Your task to perform on an android device: View the shopping cart on walmart. Add razer huntsman to the cart on walmart, then select checkout. Image 0: 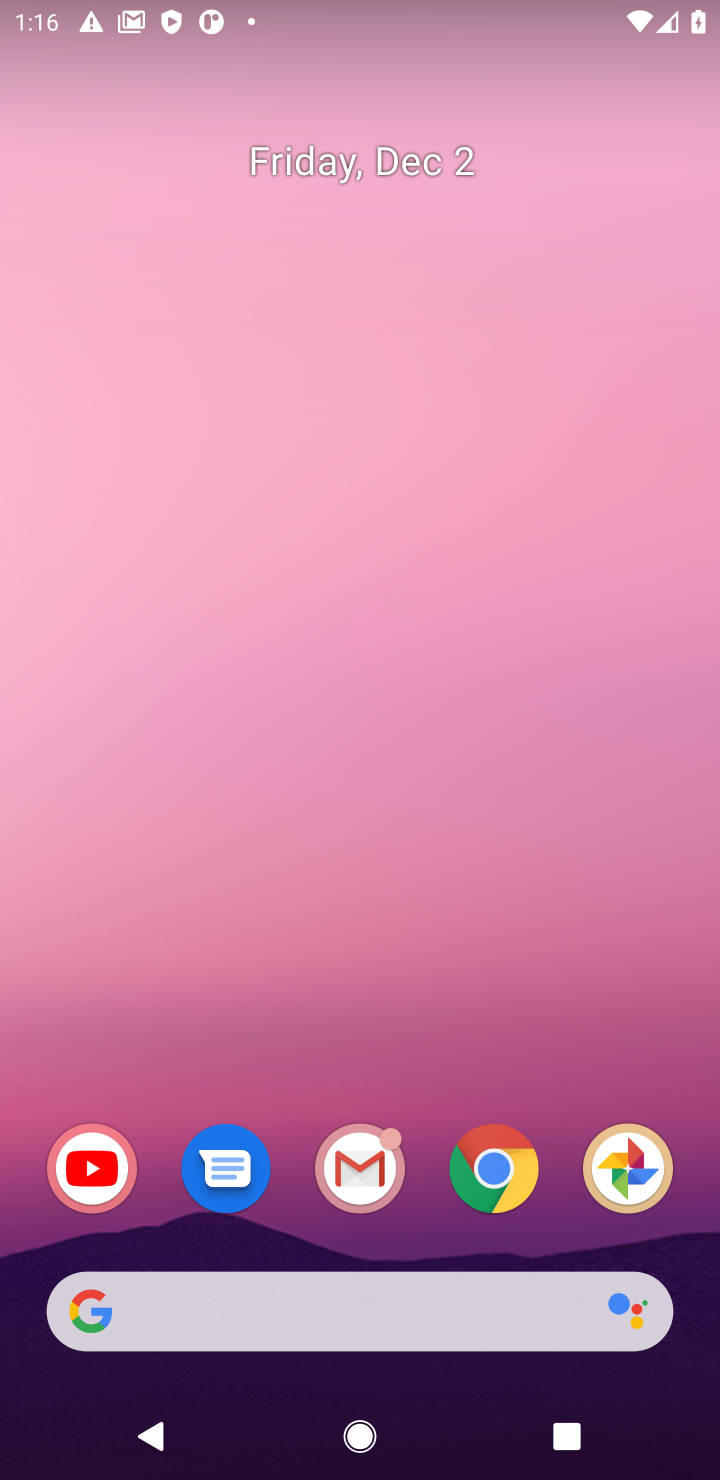
Step 0: click (500, 1170)
Your task to perform on an android device: View the shopping cart on walmart. Add razer huntsman to the cart on walmart, then select checkout. Image 1: 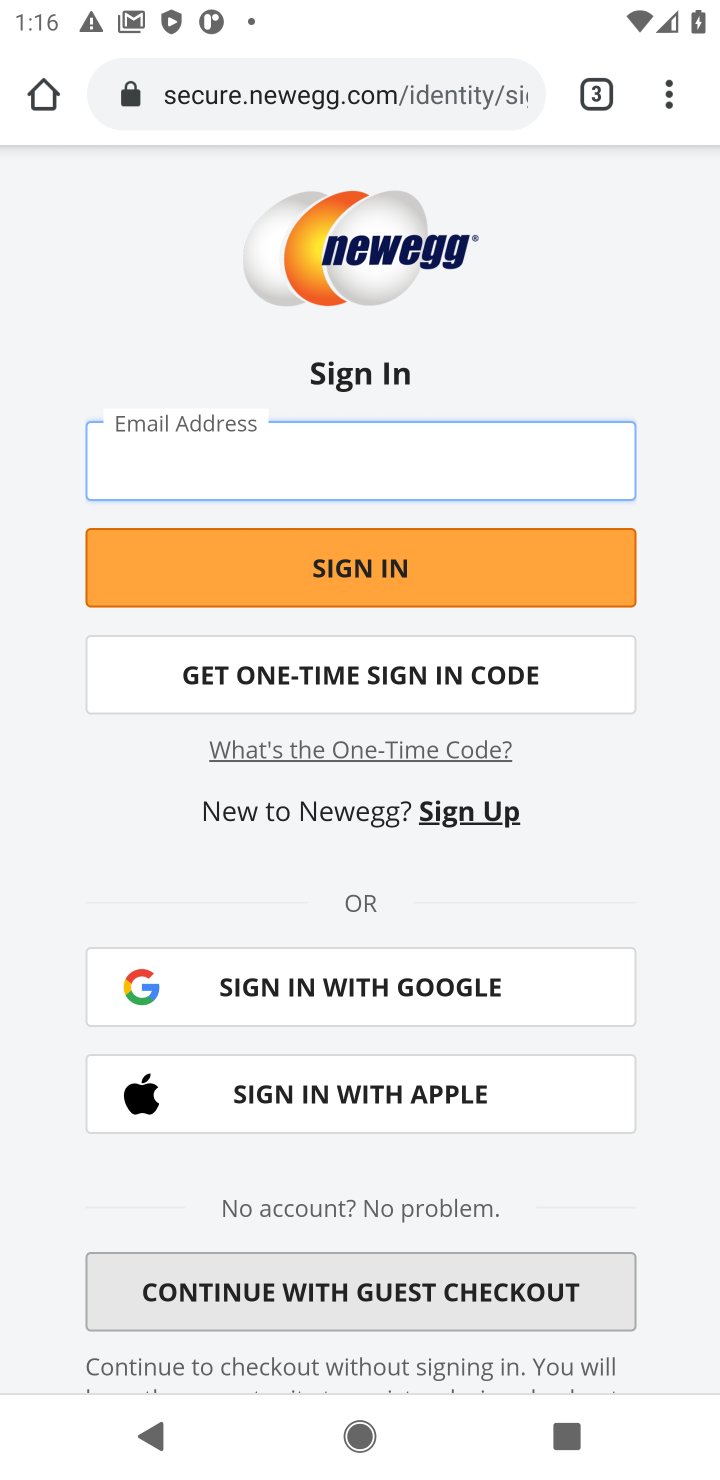
Step 1: click (279, 102)
Your task to perform on an android device: View the shopping cart on walmart. Add razer huntsman to the cart on walmart, then select checkout. Image 2: 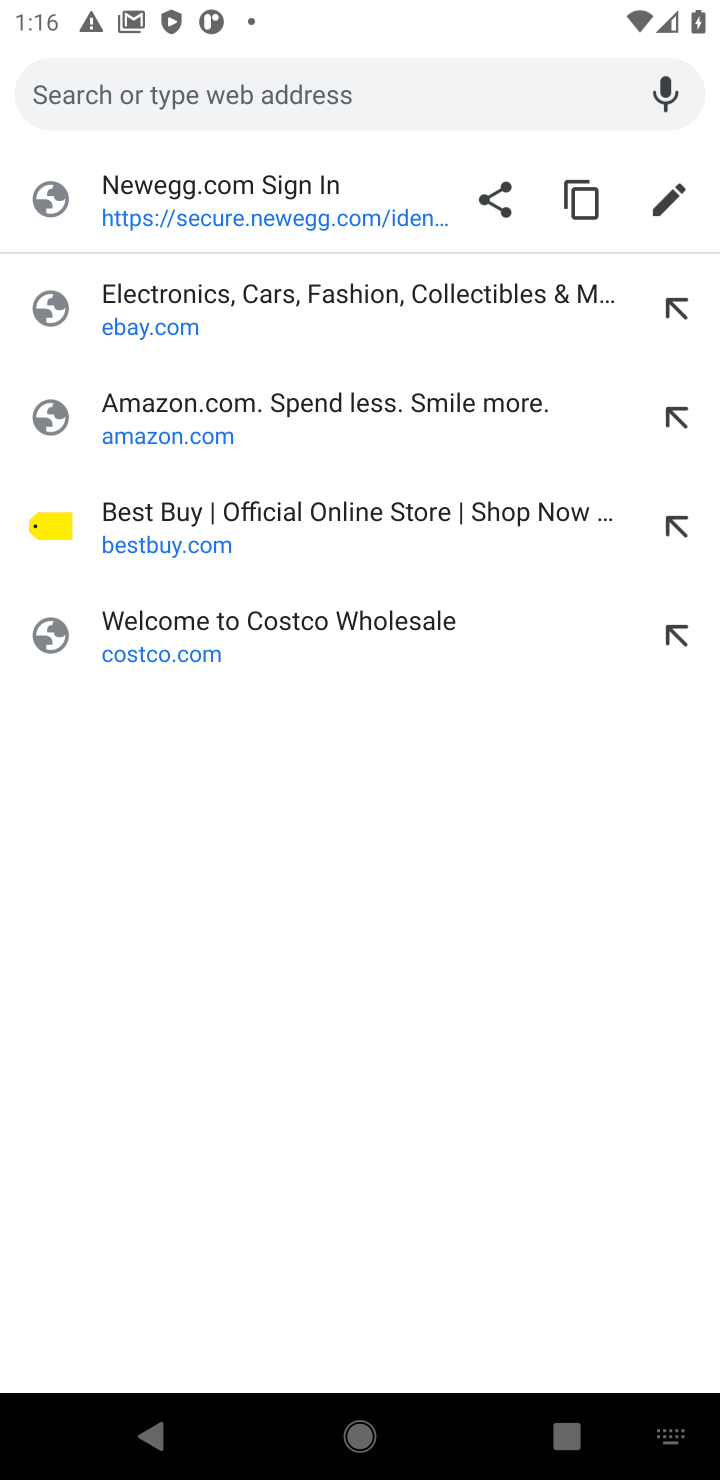
Step 2: type "walmart.com"
Your task to perform on an android device: View the shopping cart on walmart. Add razer huntsman to the cart on walmart, then select checkout. Image 3: 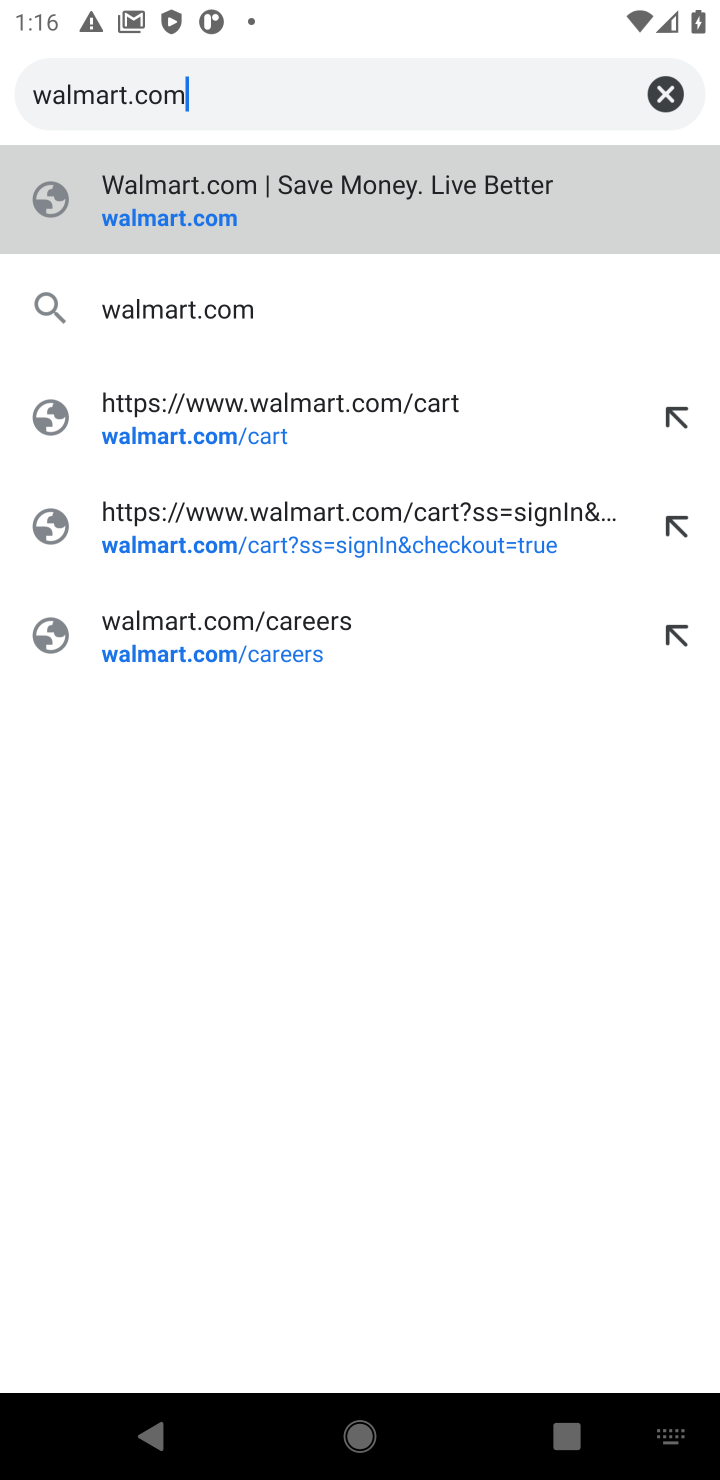
Step 3: click (130, 203)
Your task to perform on an android device: View the shopping cart on walmart. Add razer huntsman to the cart on walmart, then select checkout. Image 4: 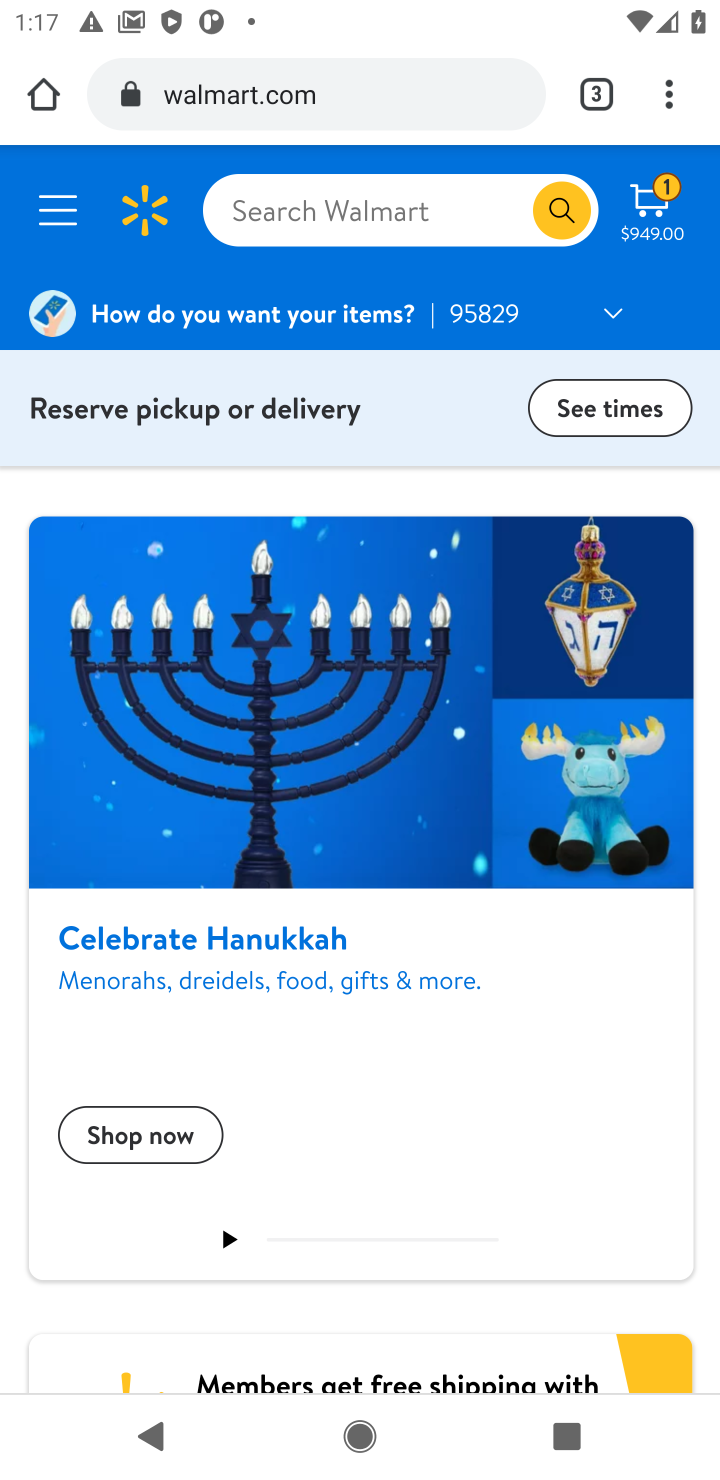
Step 4: click (658, 220)
Your task to perform on an android device: View the shopping cart on walmart. Add razer huntsman to the cart on walmart, then select checkout. Image 5: 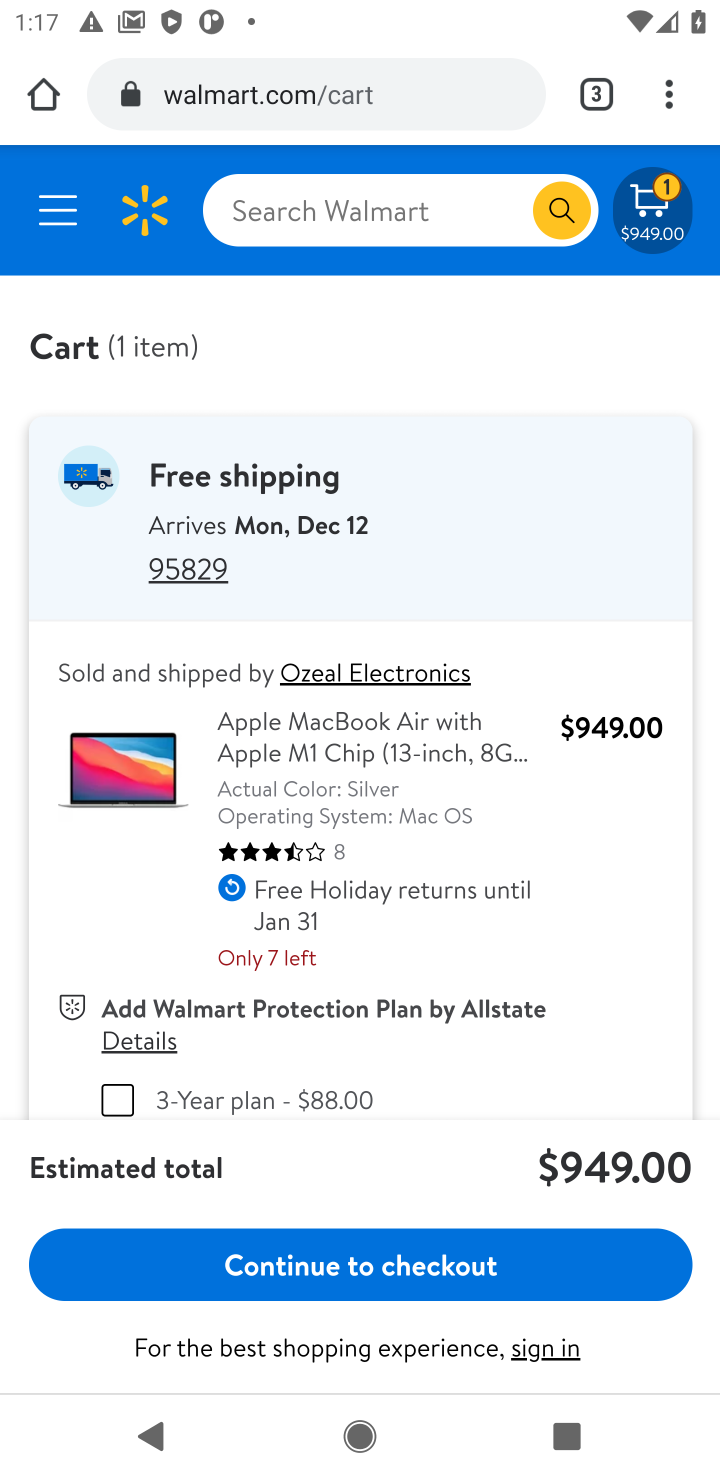
Step 5: click (292, 204)
Your task to perform on an android device: View the shopping cart on walmart. Add razer huntsman to the cart on walmart, then select checkout. Image 6: 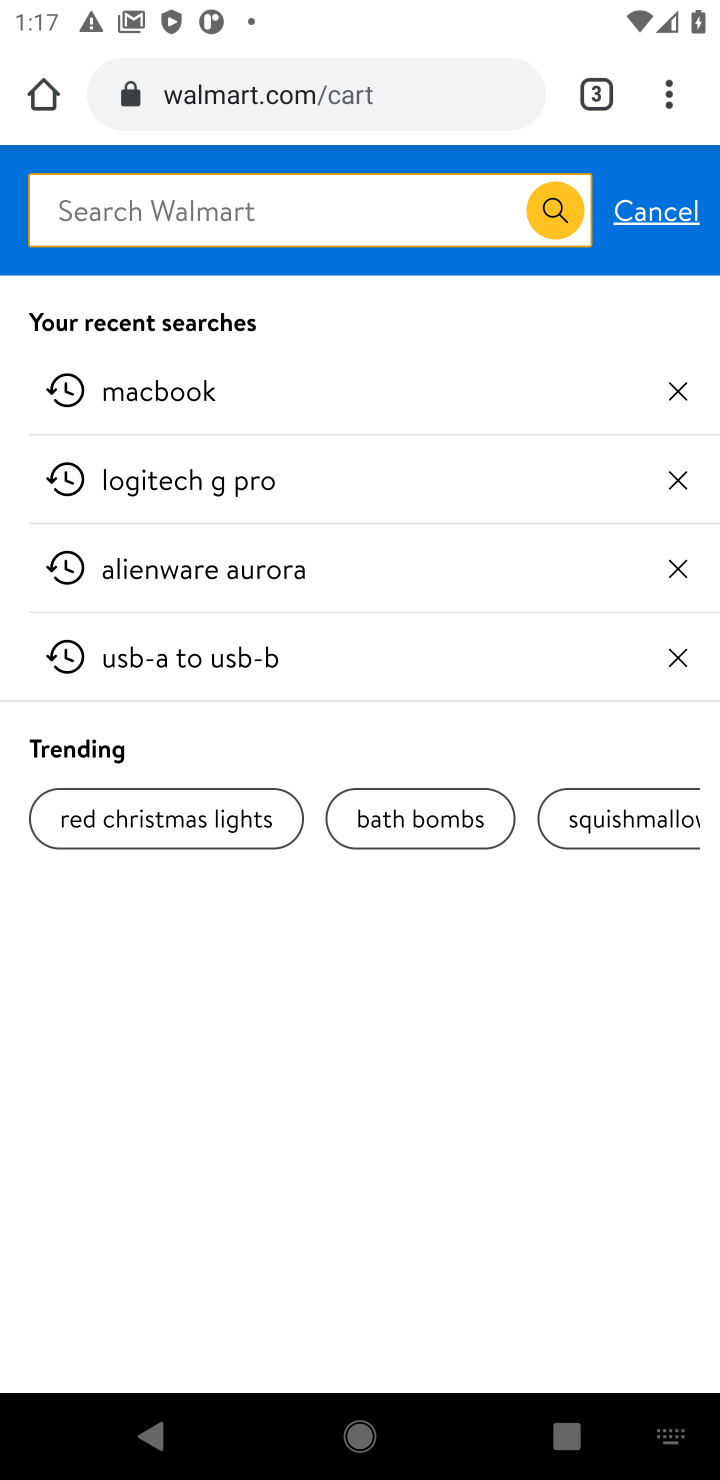
Step 6: type "razer huntsman"
Your task to perform on an android device: View the shopping cart on walmart. Add razer huntsman to the cart on walmart, then select checkout. Image 7: 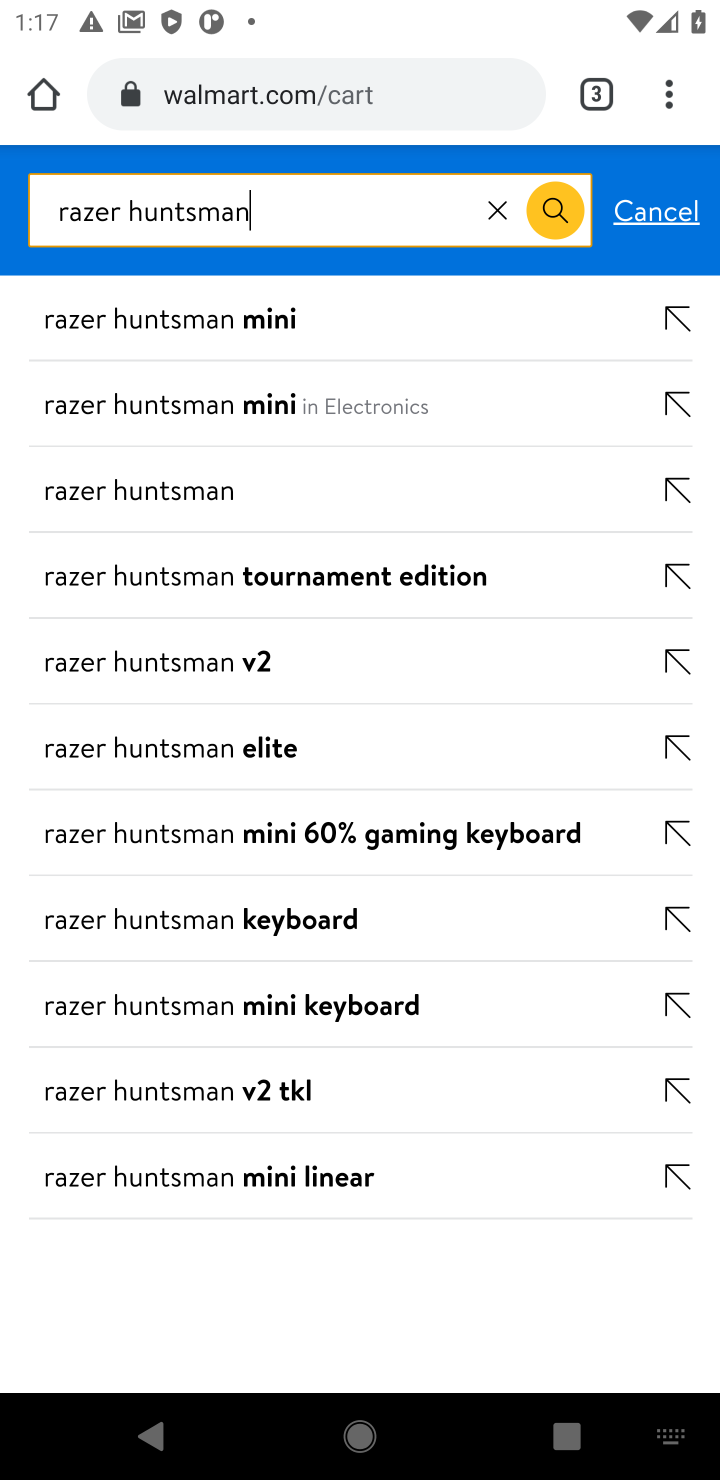
Step 7: click (143, 489)
Your task to perform on an android device: View the shopping cart on walmart. Add razer huntsman to the cart on walmart, then select checkout. Image 8: 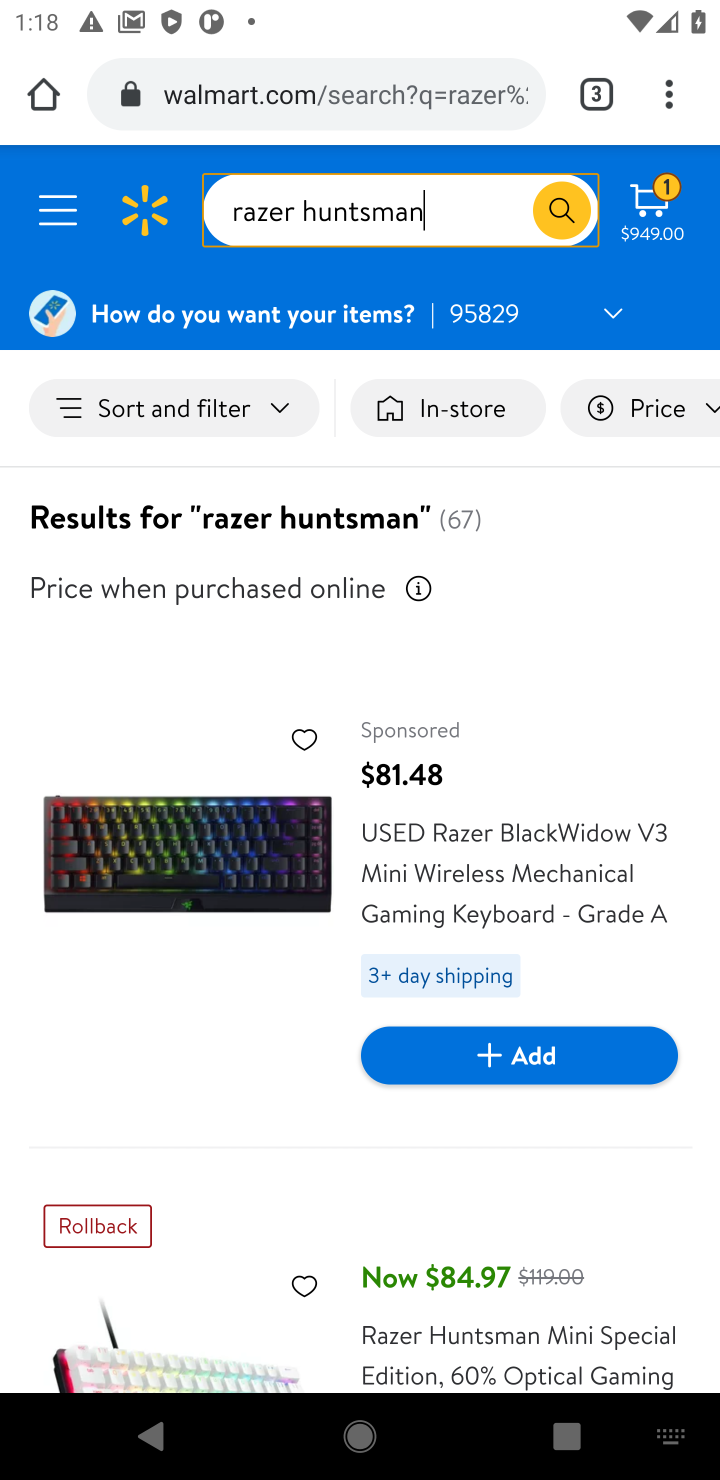
Step 8: drag from (255, 957) to (194, 522)
Your task to perform on an android device: View the shopping cart on walmart. Add razer huntsman to the cart on walmart, then select checkout. Image 9: 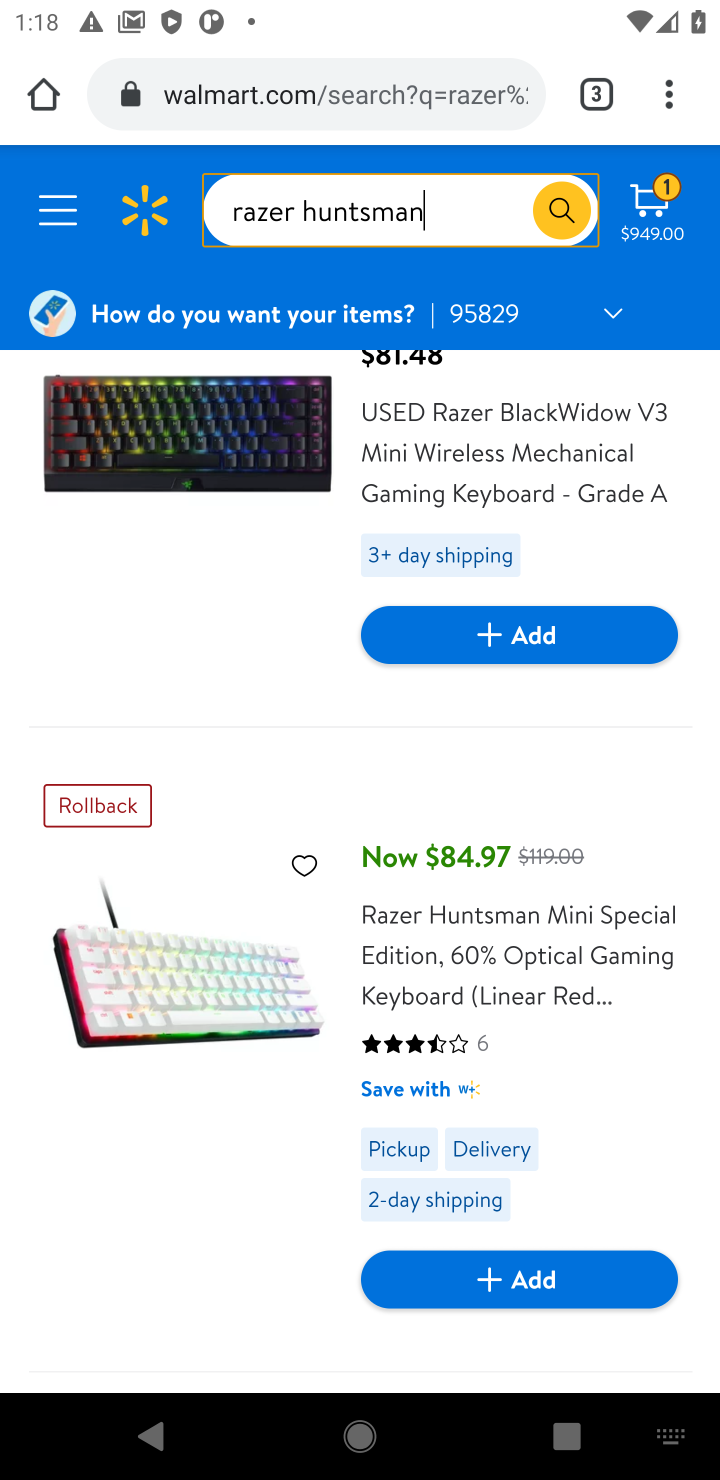
Step 9: drag from (194, 1017) to (188, 729)
Your task to perform on an android device: View the shopping cart on walmart. Add razer huntsman to the cart on walmart, then select checkout. Image 10: 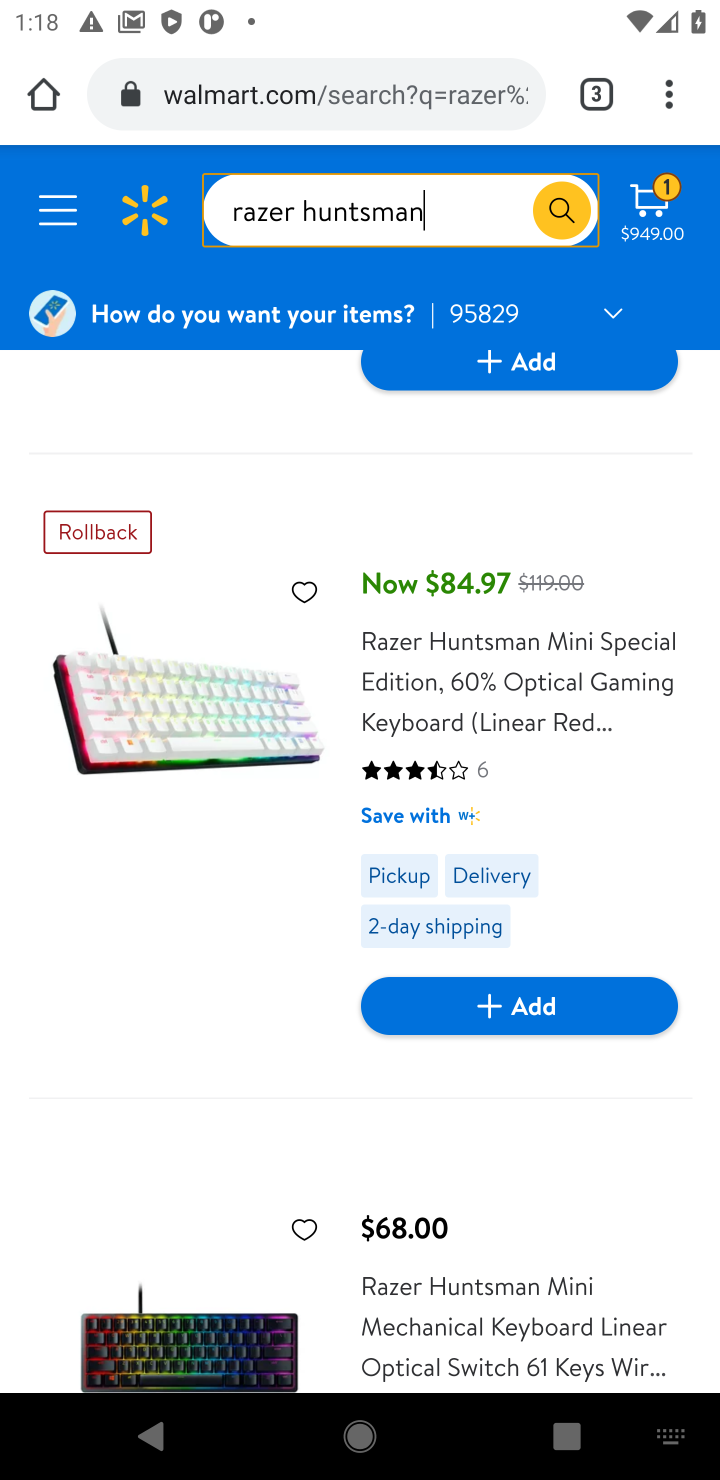
Step 10: click (485, 1004)
Your task to perform on an android device: View the shopping cart on walmart. Add razer huntsman to the cart on walmart, then select checkout. Image 11: 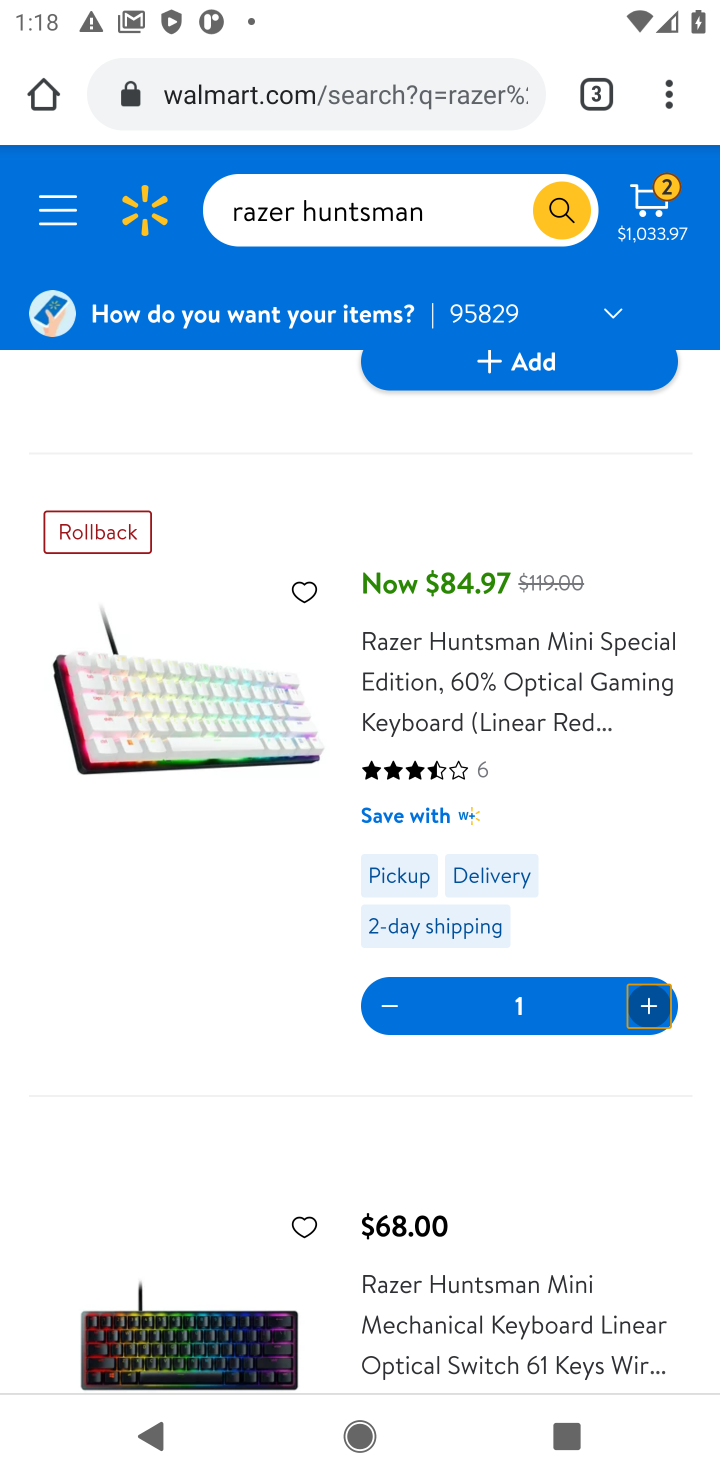
Step 11: click (648, 197)
Your task to perform on an android device: View the shopping cart on walmart. Add razer huntsman to the cart on walmart, then select checkout. Image 12: 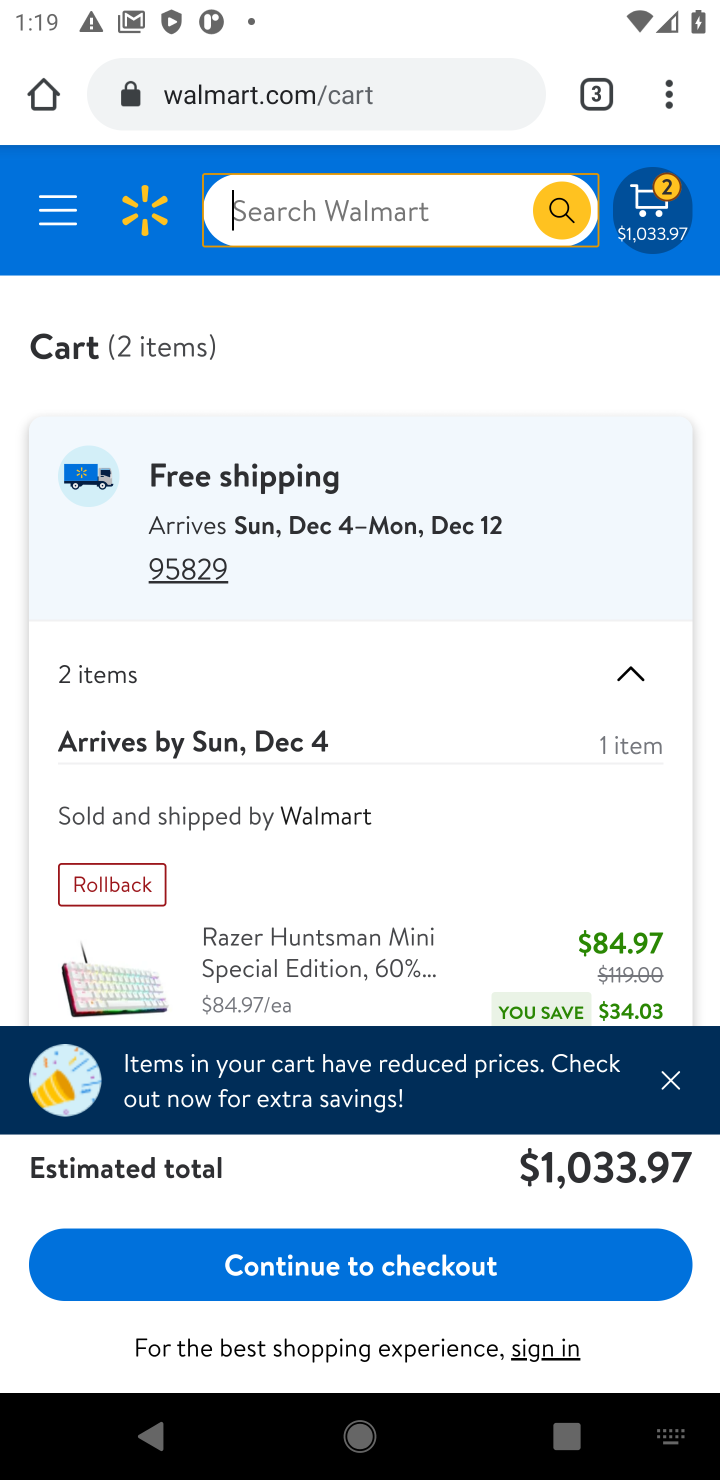
Step 12: click (316, 1264)
Your task to perform on an android device: View the shopping cart on walmart. Add razer huntsman to the cart on walmart, then select checkout. Image 13: 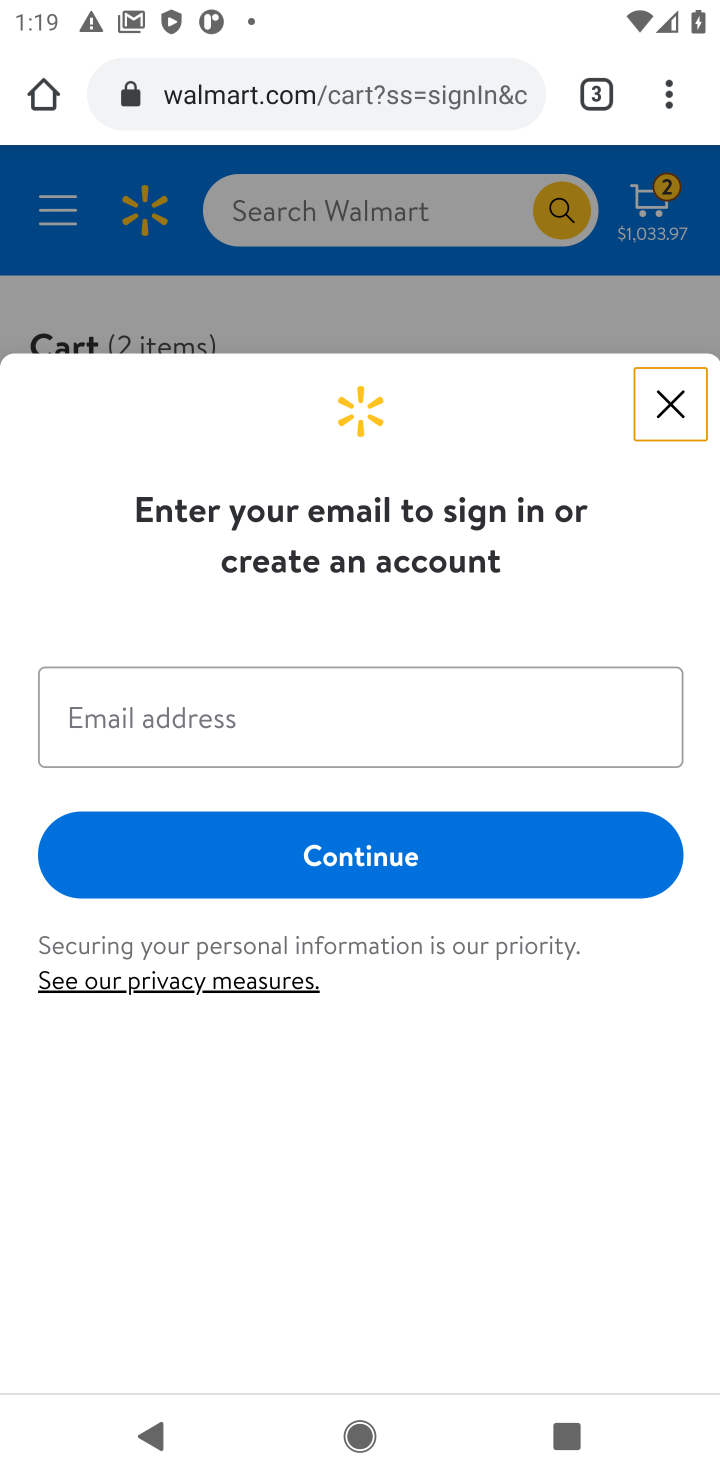
Step 13: task complete